Your task to perform on an android device: move an email to a new category in the gmail app Image 0: 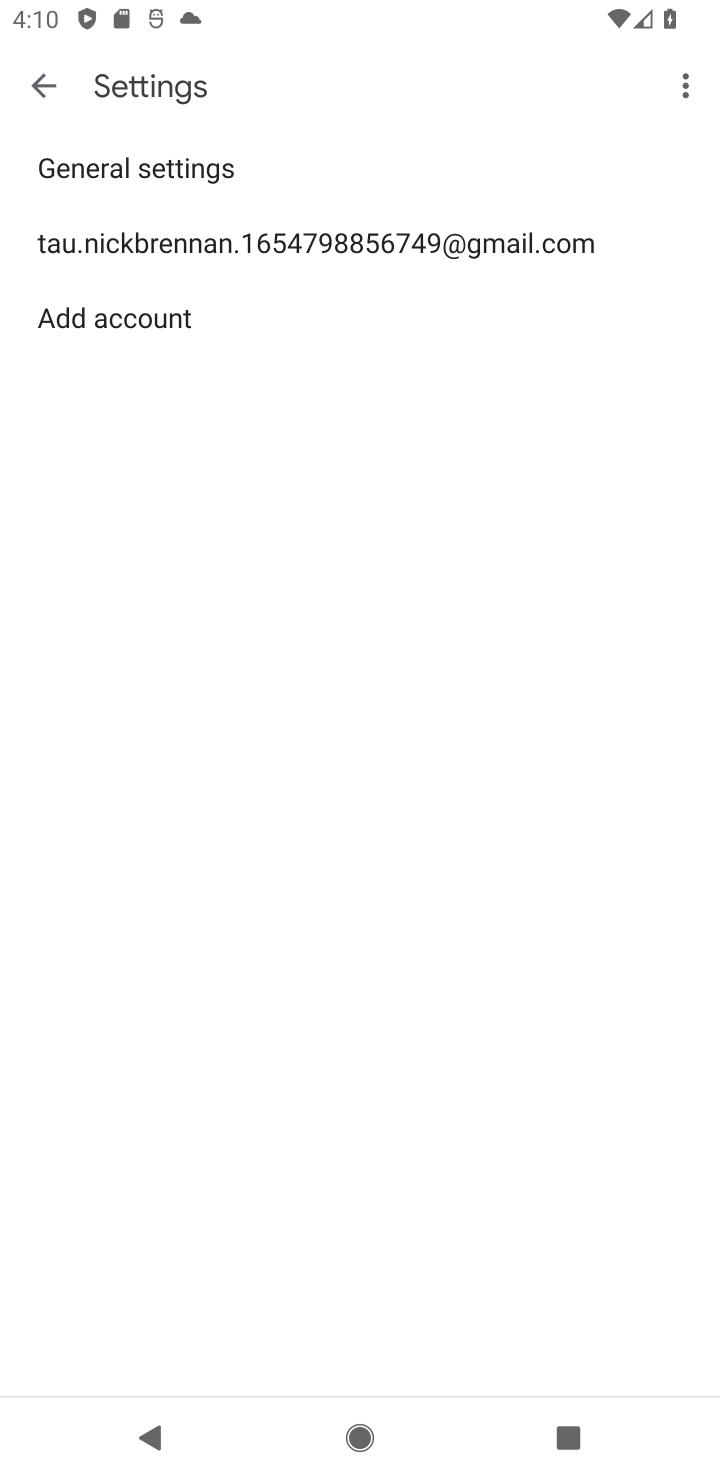
Step 0: drag from (366, 1181) to (488, 622)
Your task to perform on an android device: move an email to a new category in the gmail app Image 1: 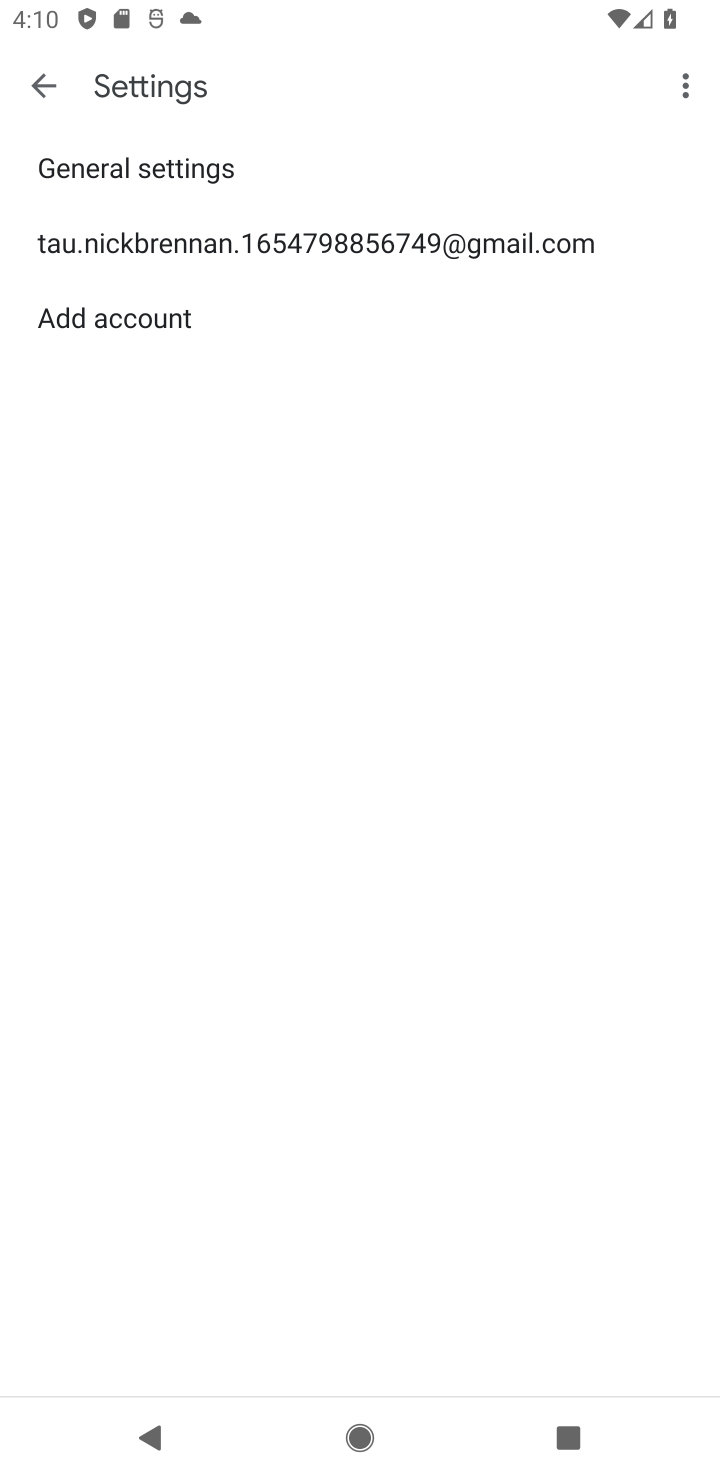
Step 1: press home button
Your task to perform on an android device: move an email to a new category in the gmail app Image 2: 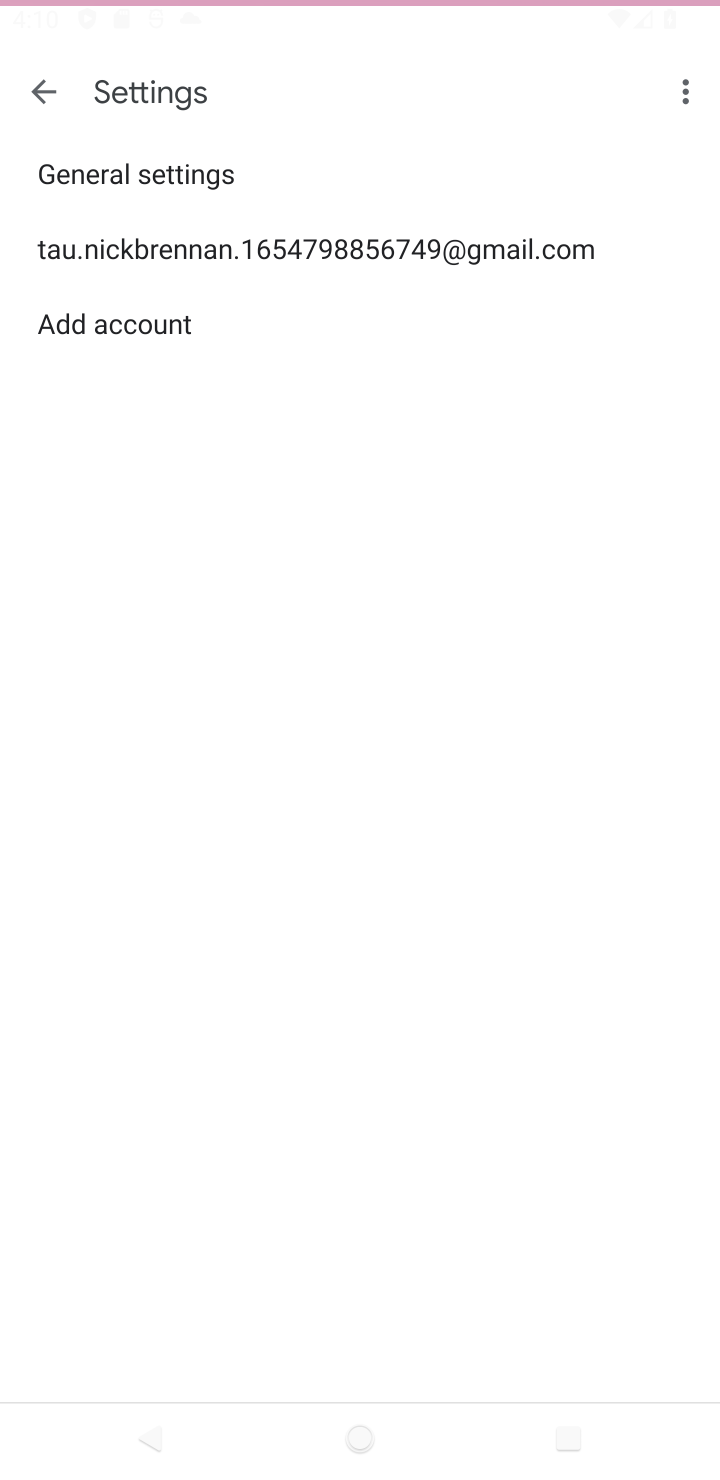
Step 2: drag from (265, 1086) to (418, 357)
Your task to perform on an android device: move an email to a new category in the gmail app Image 3: 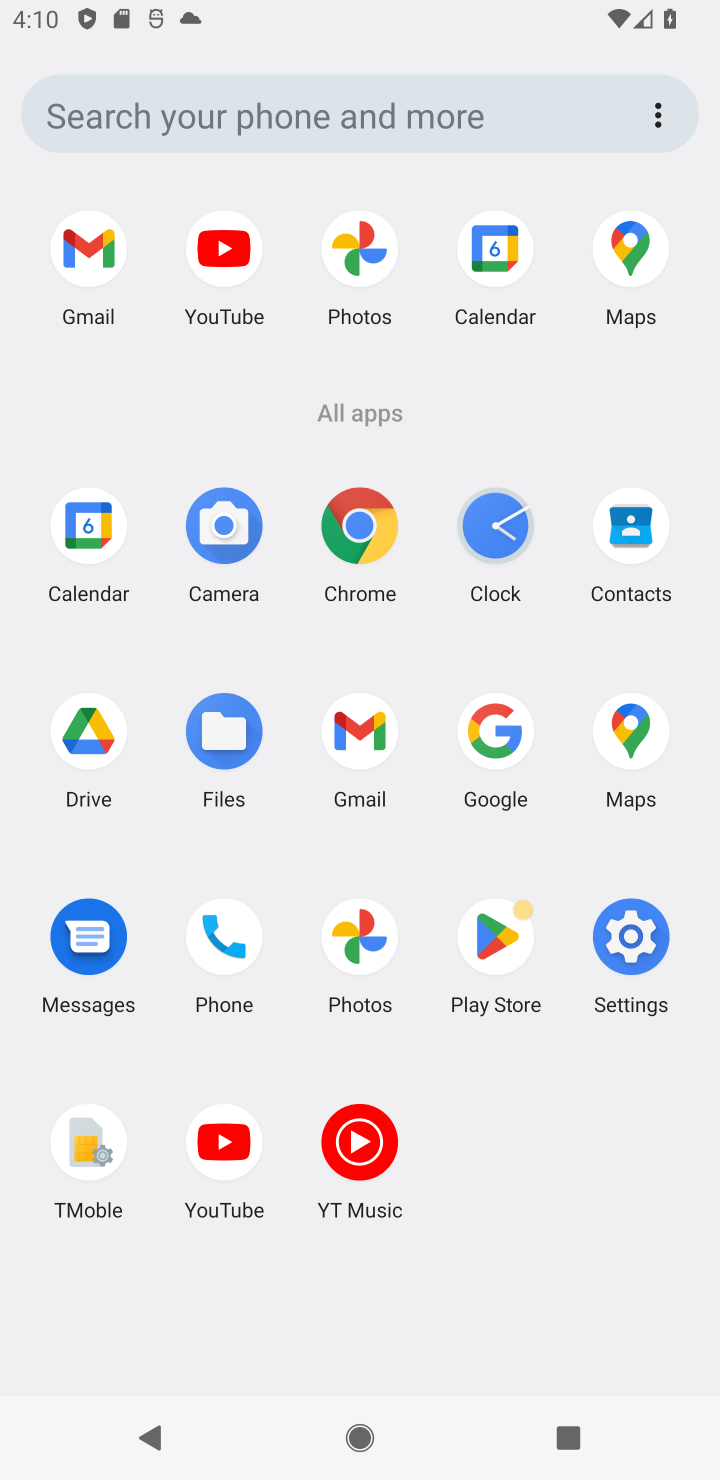
Step 3: drag from (404, 1199) to (457, 582)
Your task to perform on an android device: move an email to a new category in the gmail app Image 4: 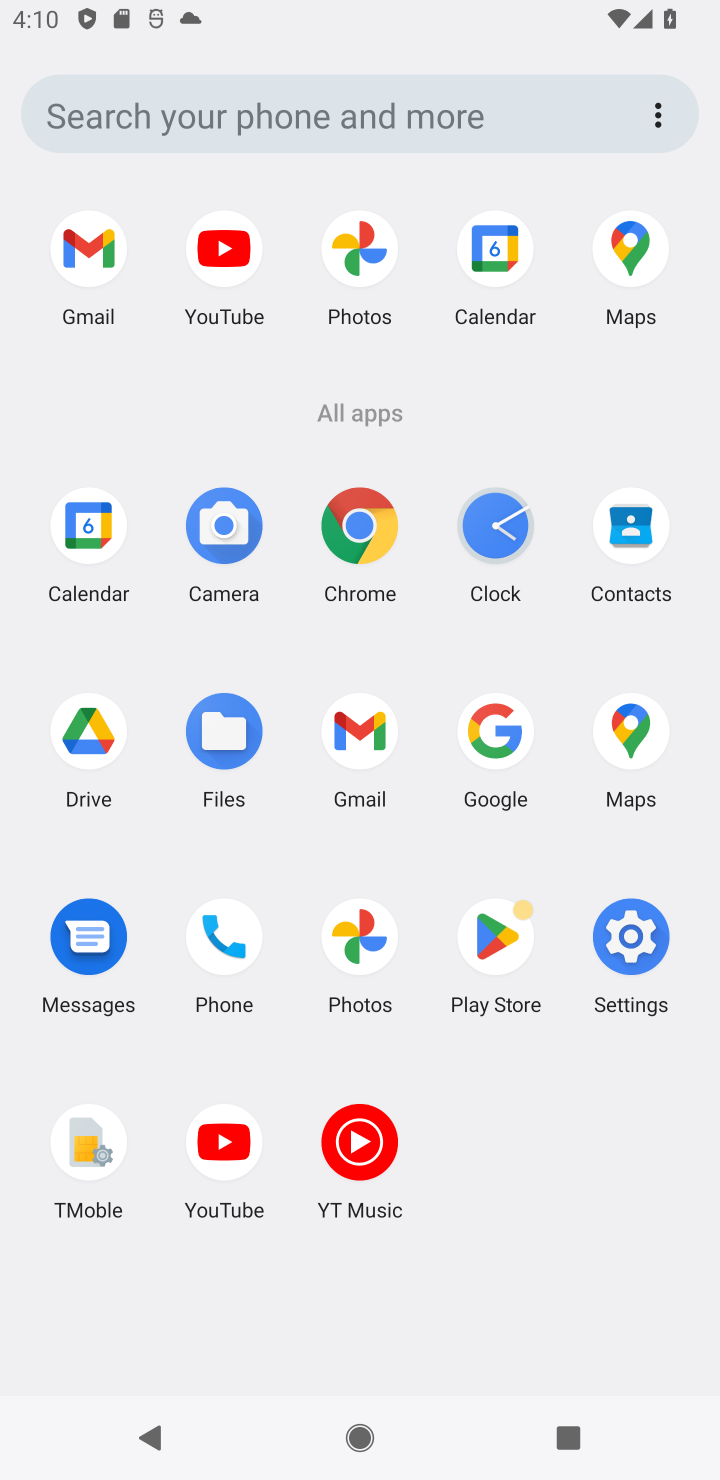
Step 4: click (347, 737)
Your task to perform on an android device: move an email to a new category in the gmail app Image 5: 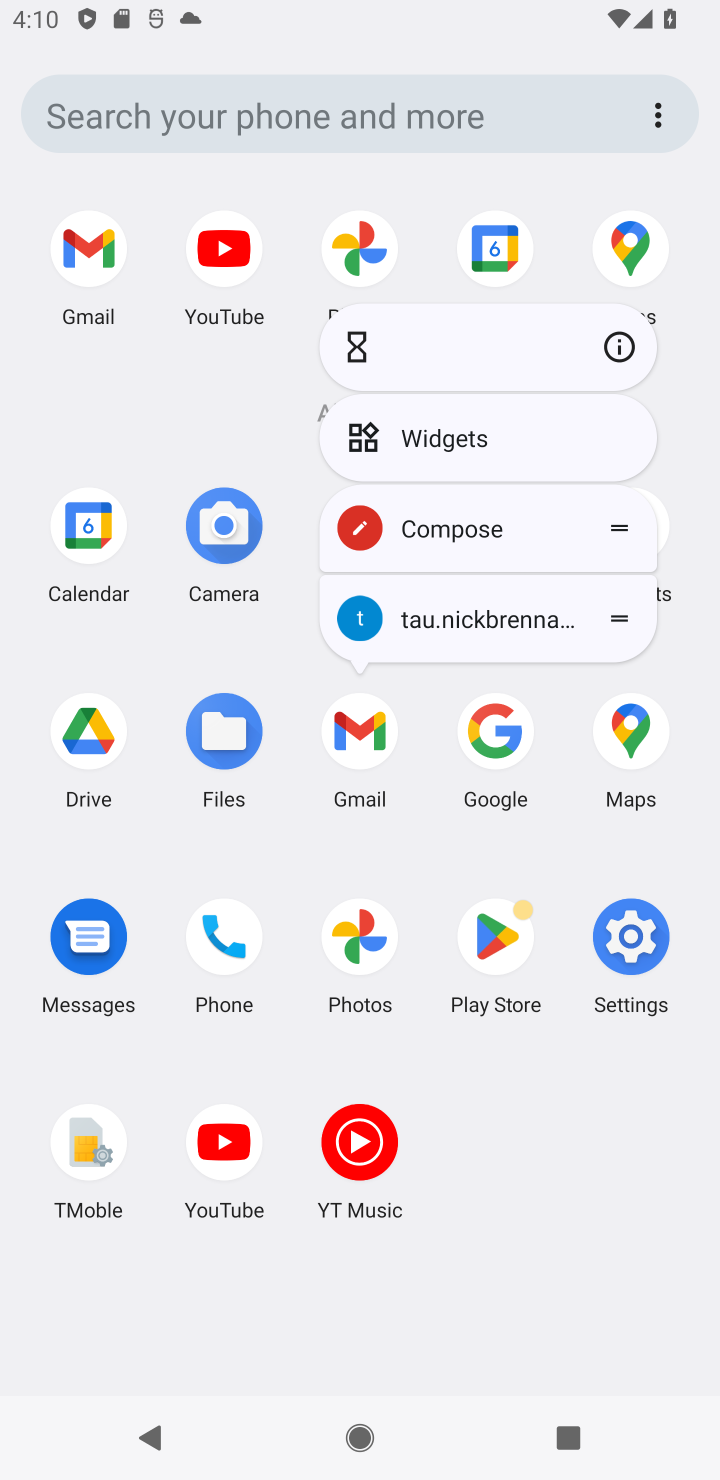
Step 5: click (625, 345)
Your task to perform on an android device: move an email to a new category in the gmail app Image 6: 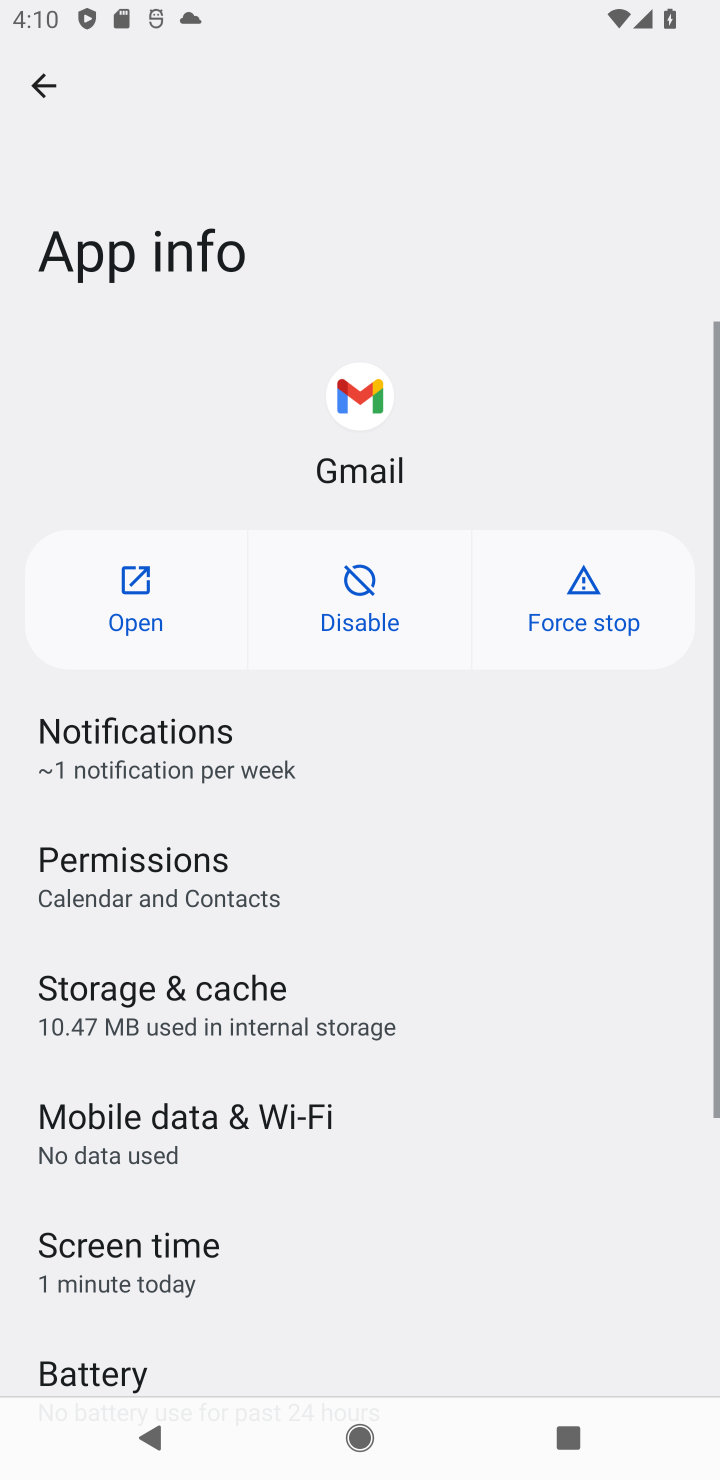
Step 6: click (127, 606)
Your task to perform on an android device: move an email to a new category in the gmail app Image 7: 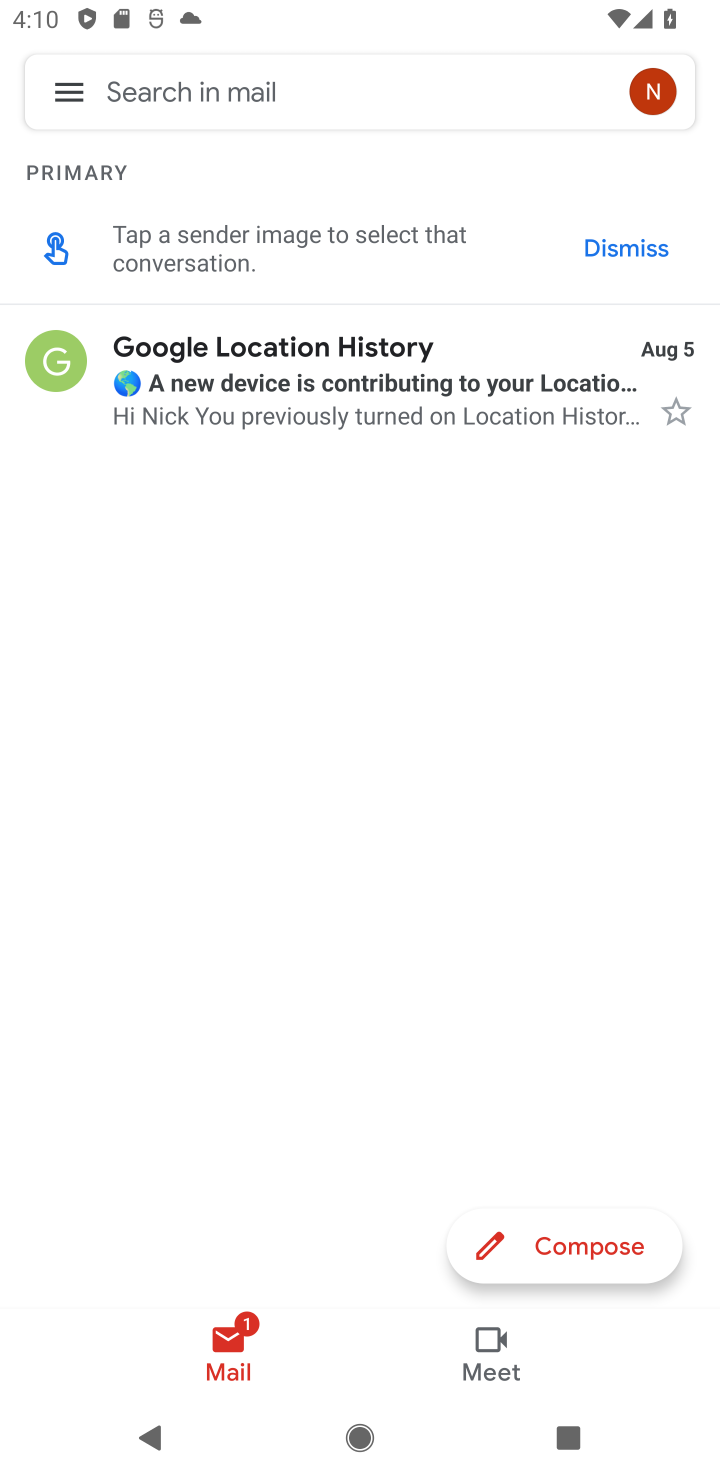
Step 7: drag from (373, 847) to (436, 370)
Your task to perform on an android device: move an email to a new category in the gmail app Image 8: 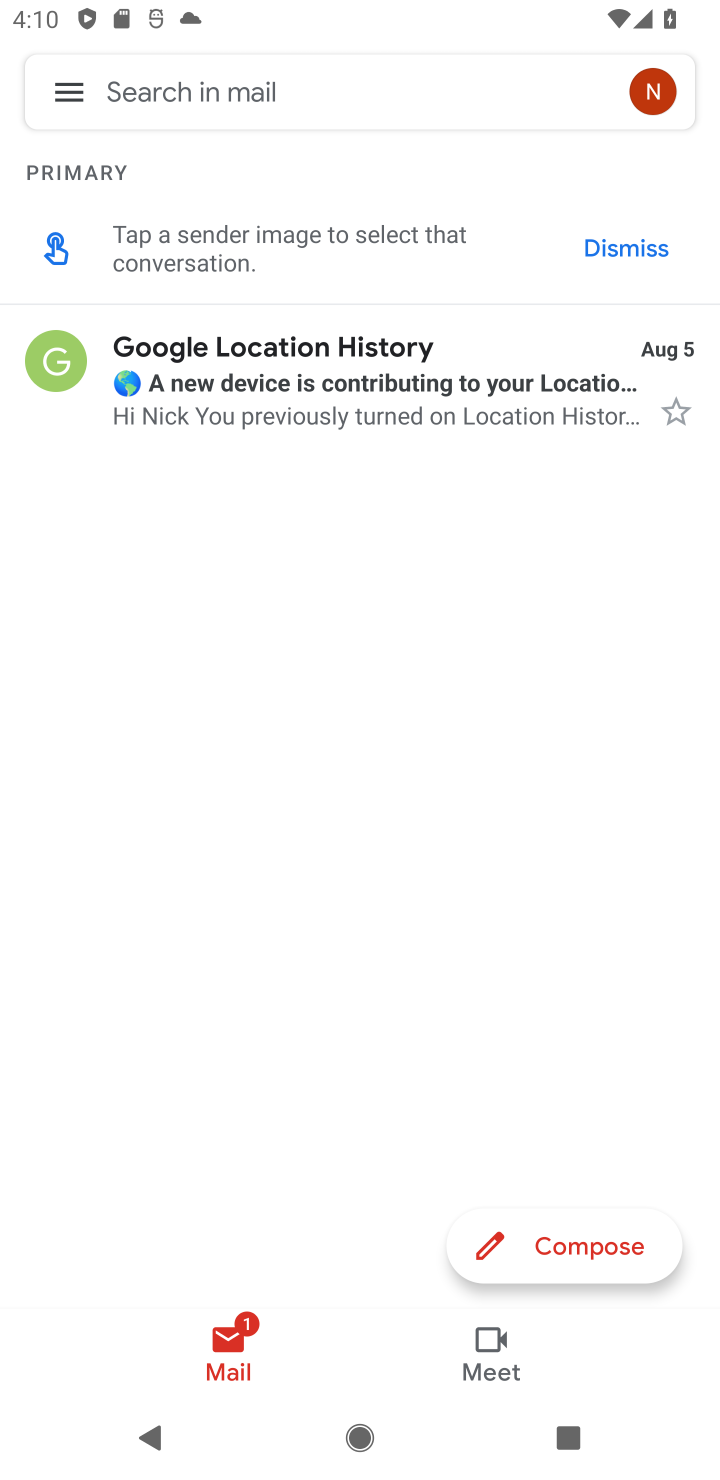
Step 8: drag from (331, 878) to (364, 642)
Your task to perform on an android device: move an email to a new category in the gmail app Image 9: 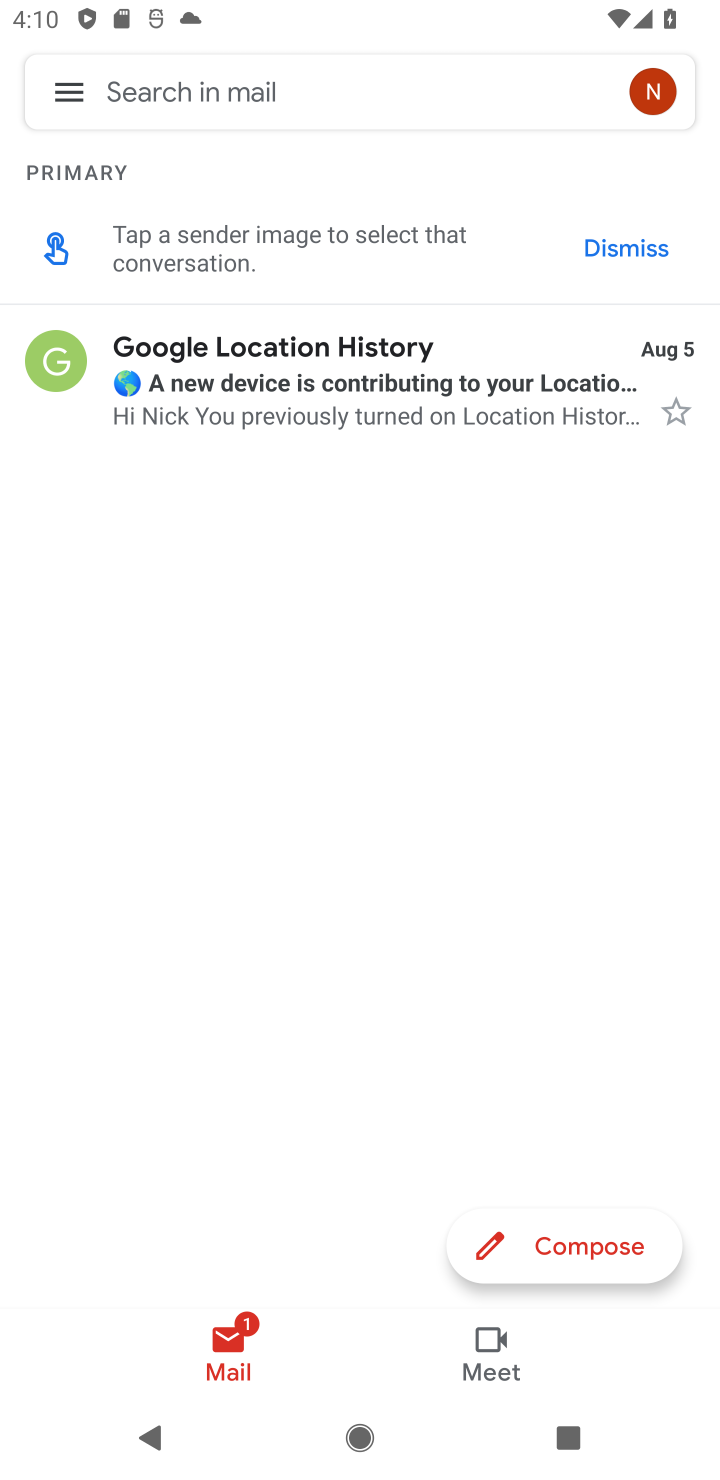
Step 9: click (327, 348)
Your task to perform on an android device: move an email to a new category in the gmail app Image 10: 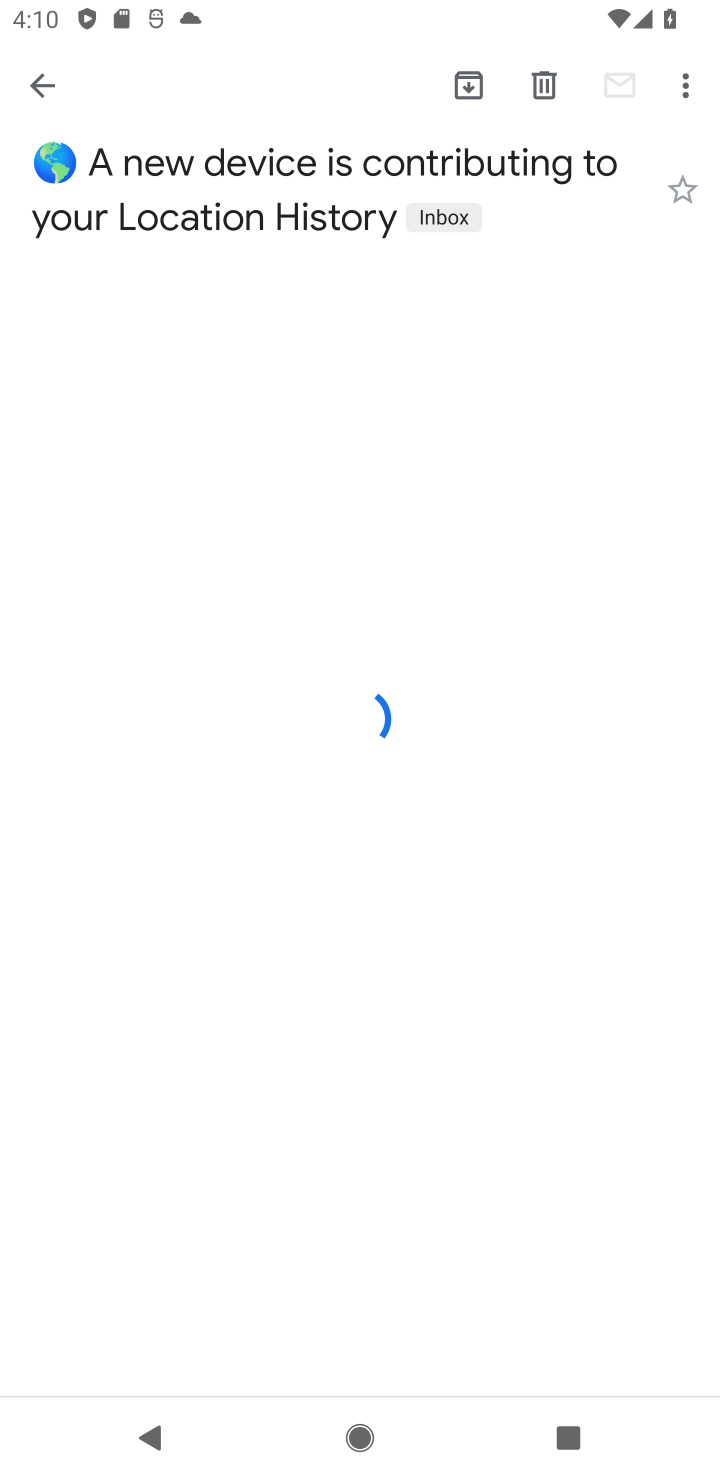
Step 10: drag from (406, 916) to (471, 389)
Your task to perform on an android device: move an email to a new category in the gmail app Image 11: 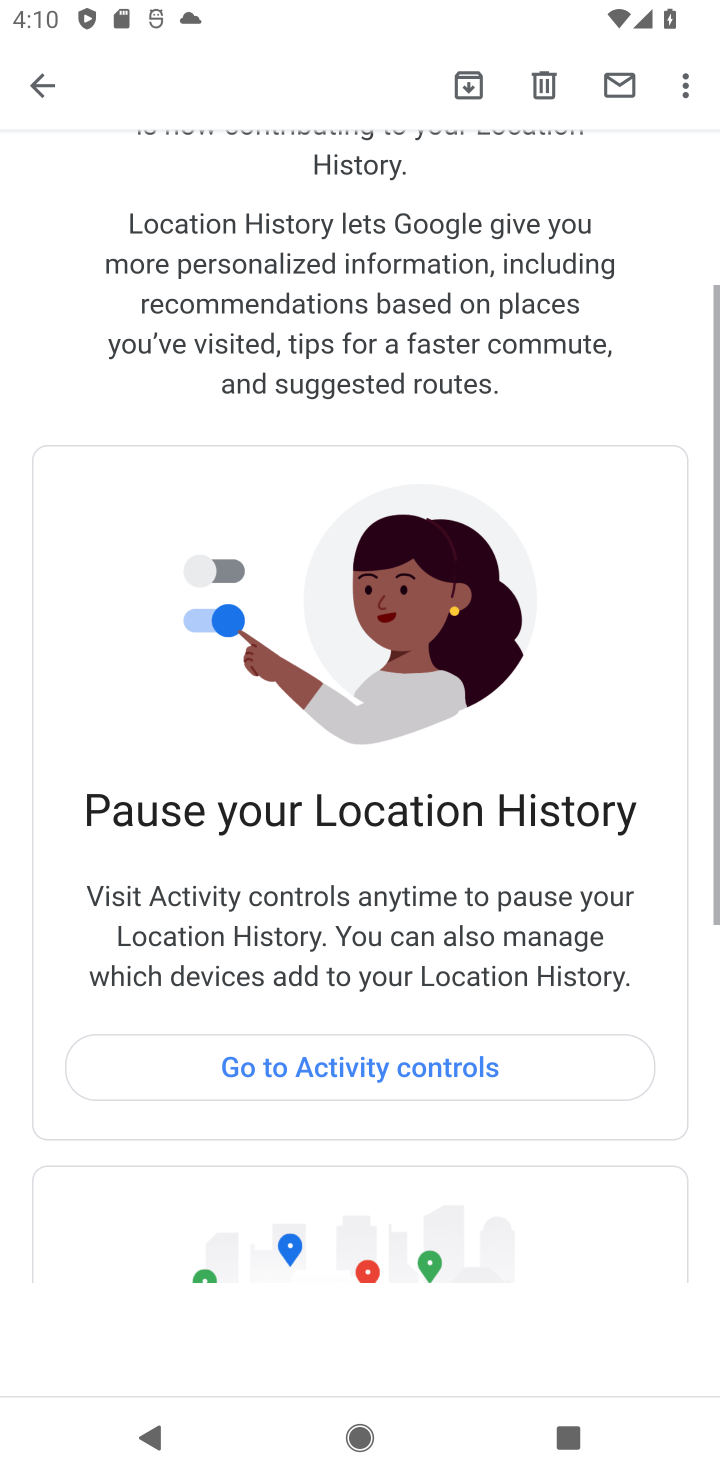
Step 11: drag from (309, 911) to (410, 408)
Your task to perform on an android device: move an email to a new category in the gmail app Image 12: 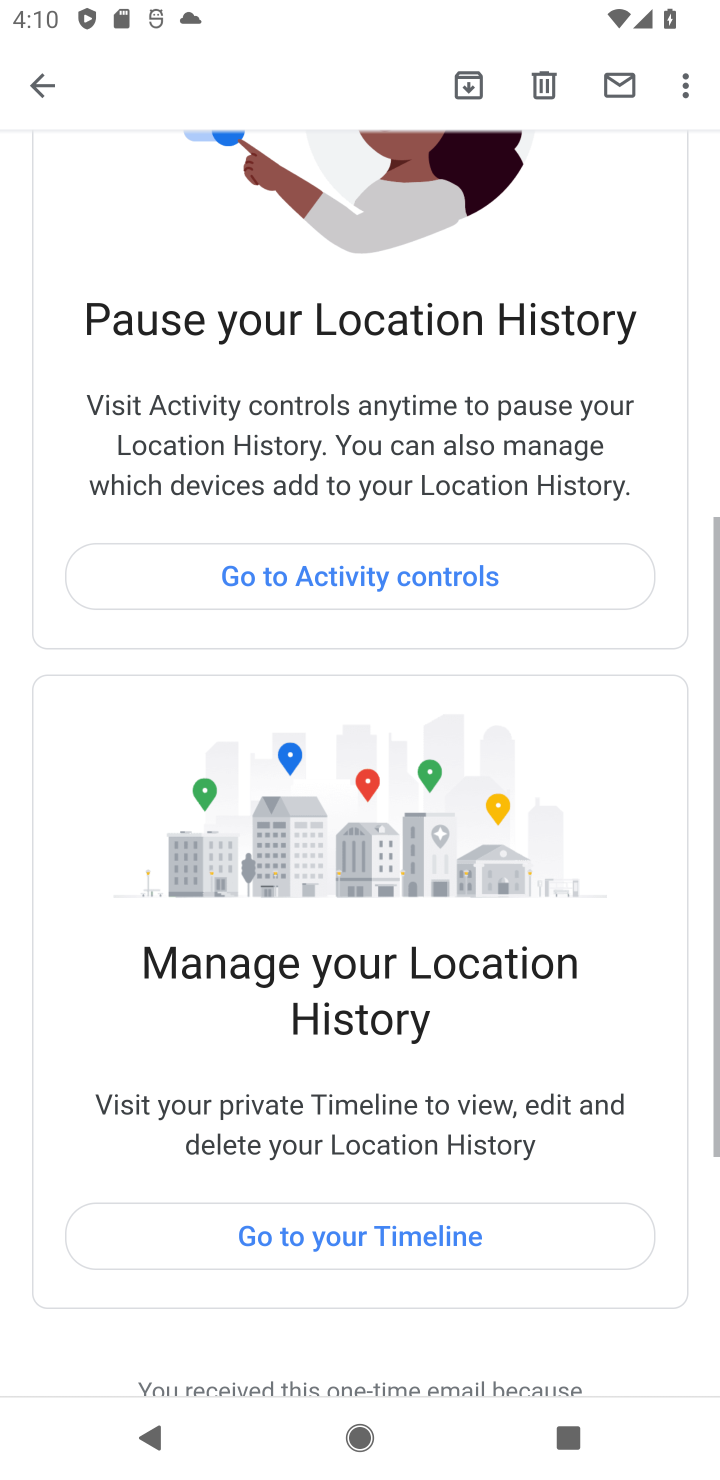
Step 12: drag from (424, 1159) to (475, 468)
Your task to perform on an android device: move an email to a new category in the gmail app Image 13: 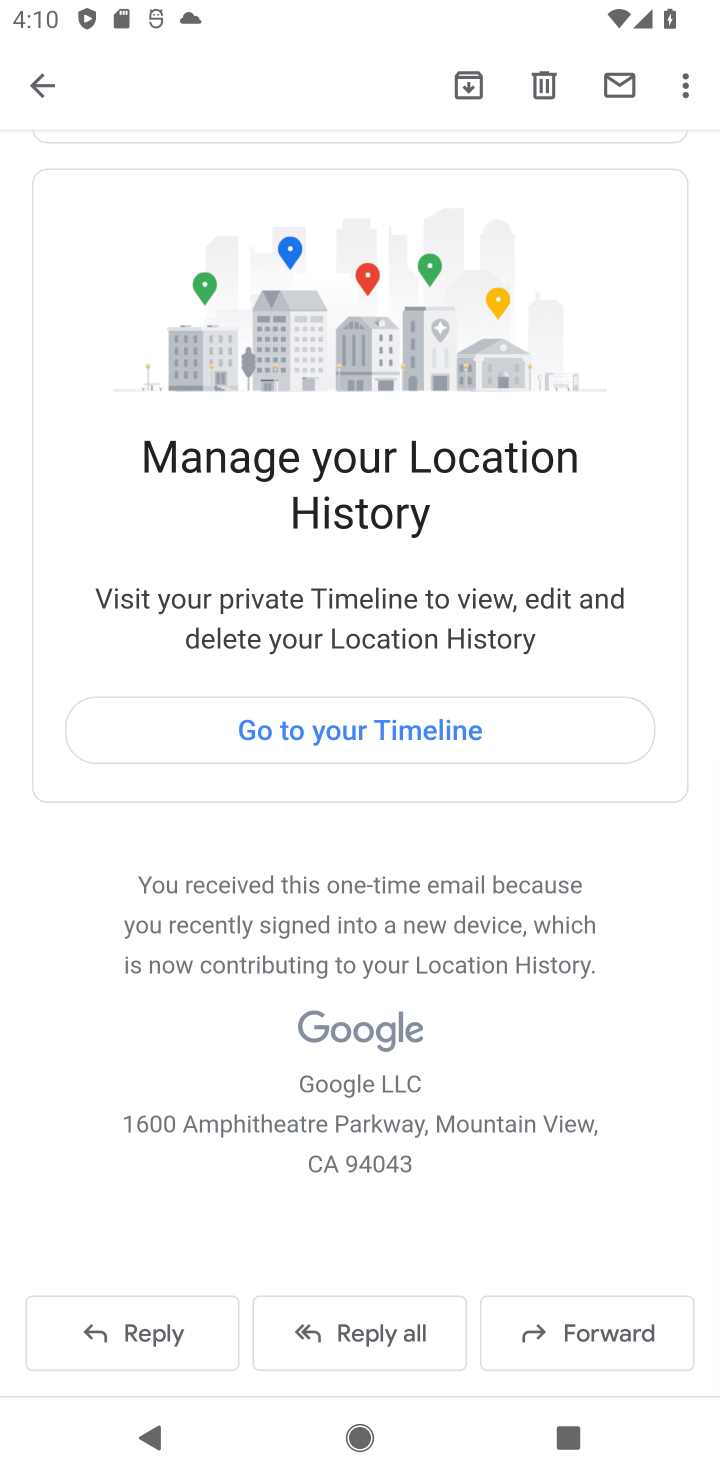
Step 13: drag from (335, 917) to (513, 324)
Your task to perform on an android device: move an email to a new category in the gmail app Image 14: 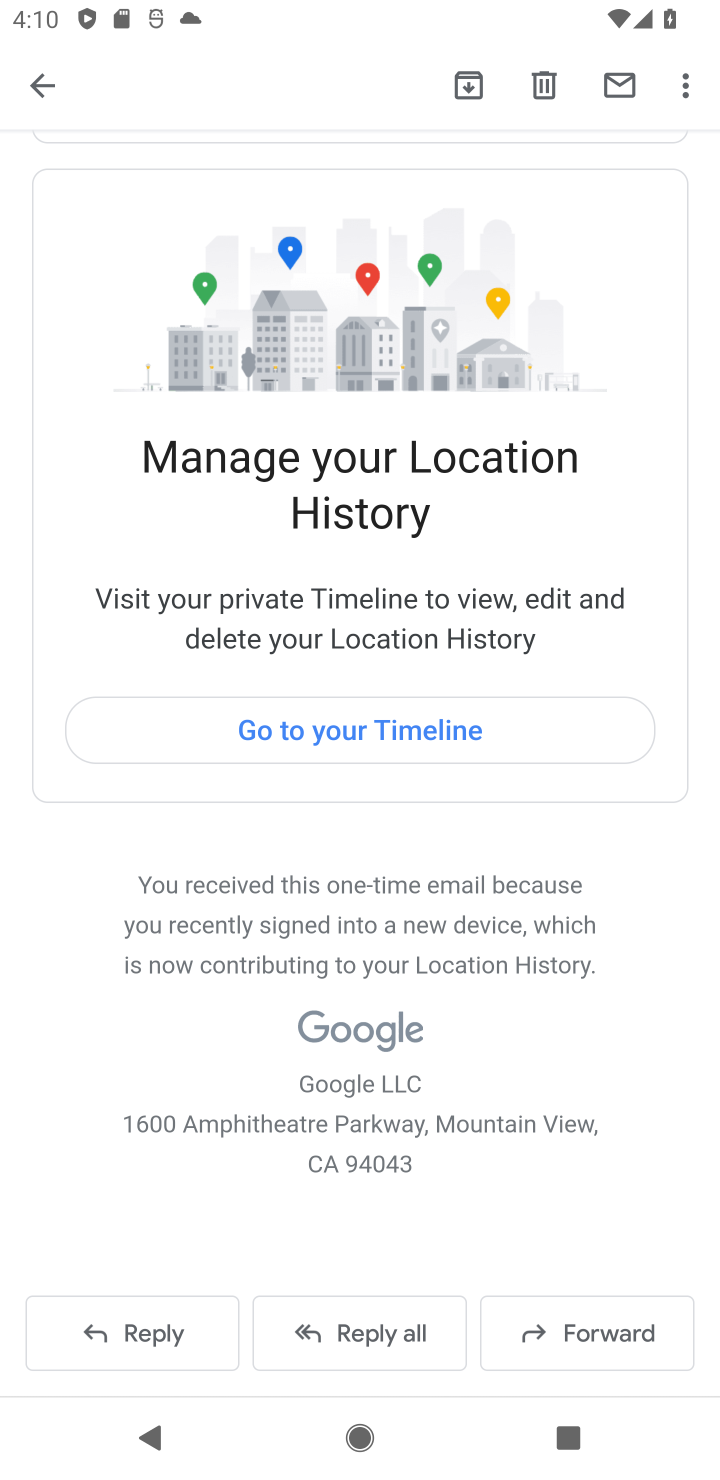
Step 14: drag from (458, 1007) to (512, 462)
Your task to perform on an android device: move an email to a new category in the gmail app Image 15: 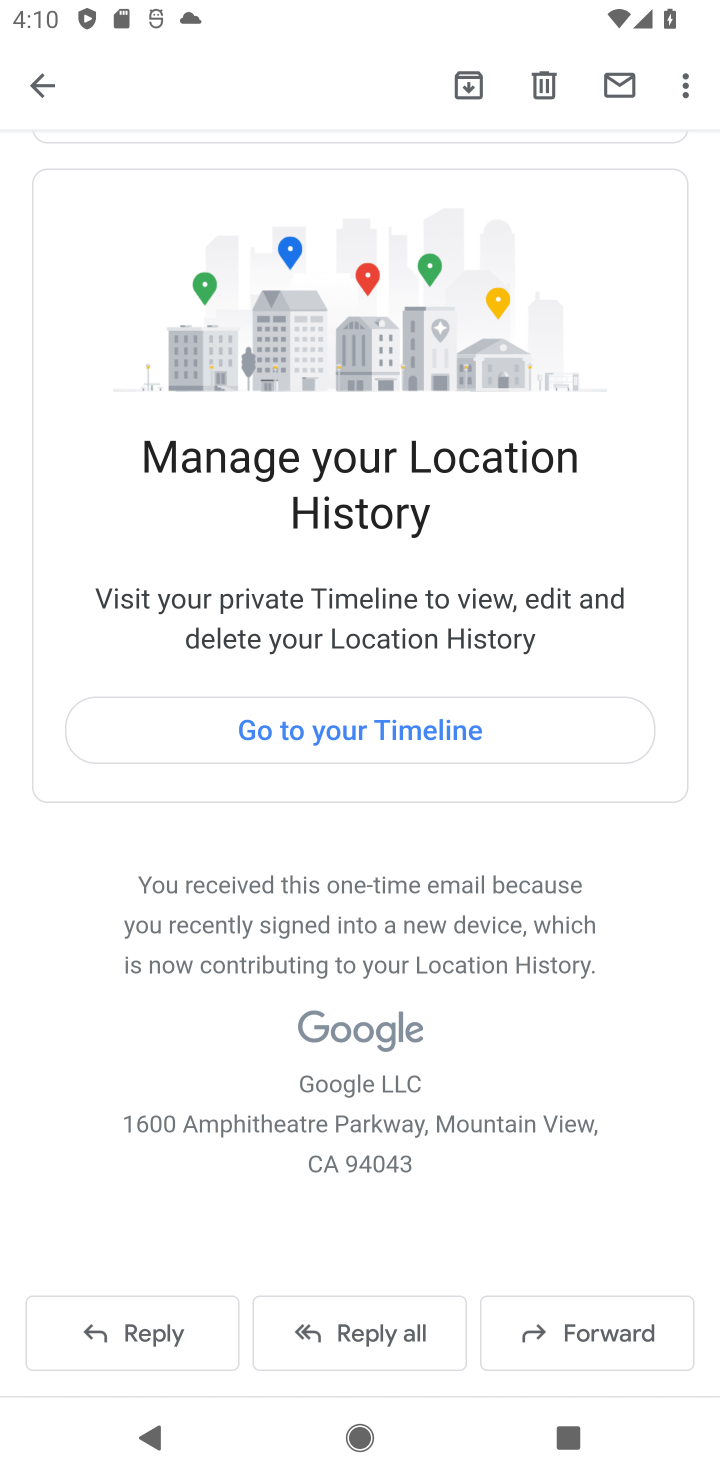
Step 15: drag from (489, 460) to (549, 1158)
Your task to perform on an android device: move an email to a new category in the gmail app Image 16: 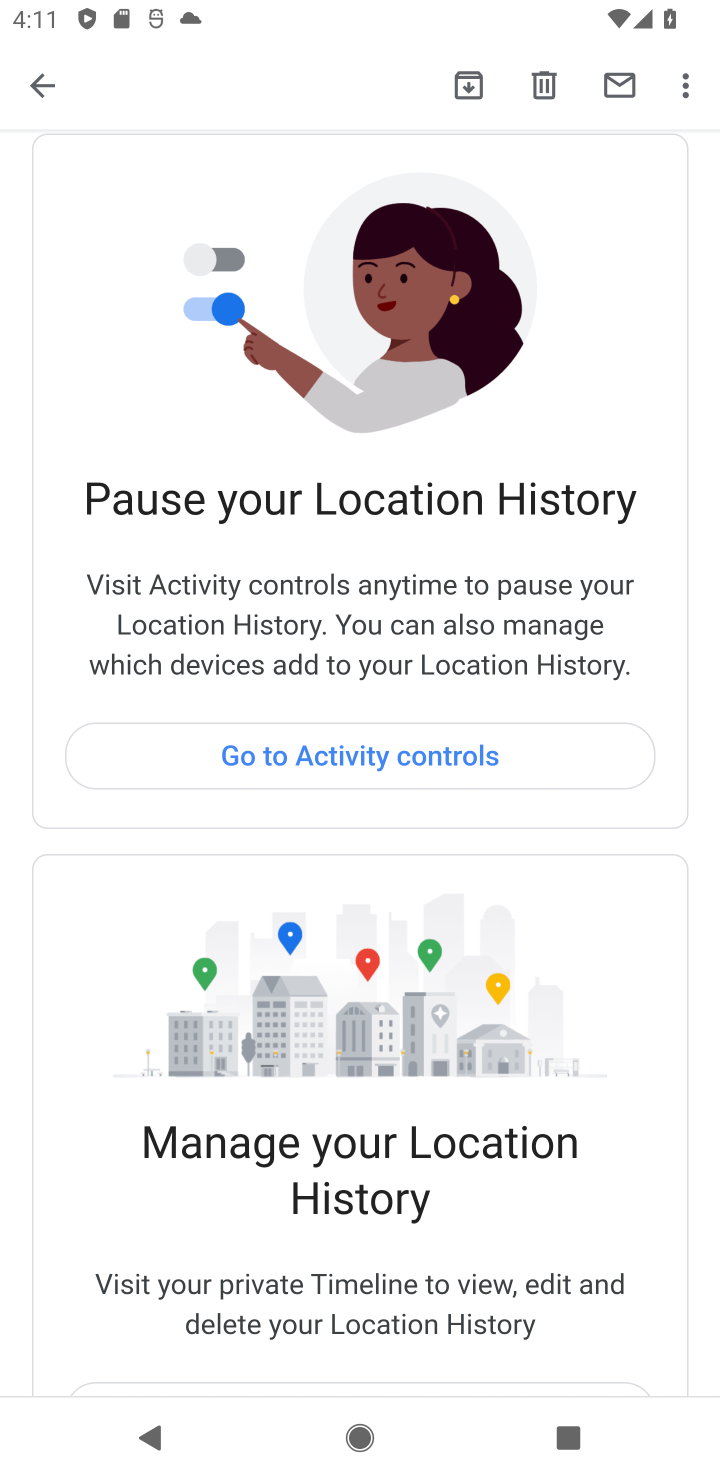
Step 16: drag from (472, 808) to (647, 589)
Your task to perform on an android device: move an email to a new category in the gmail app Image 17: 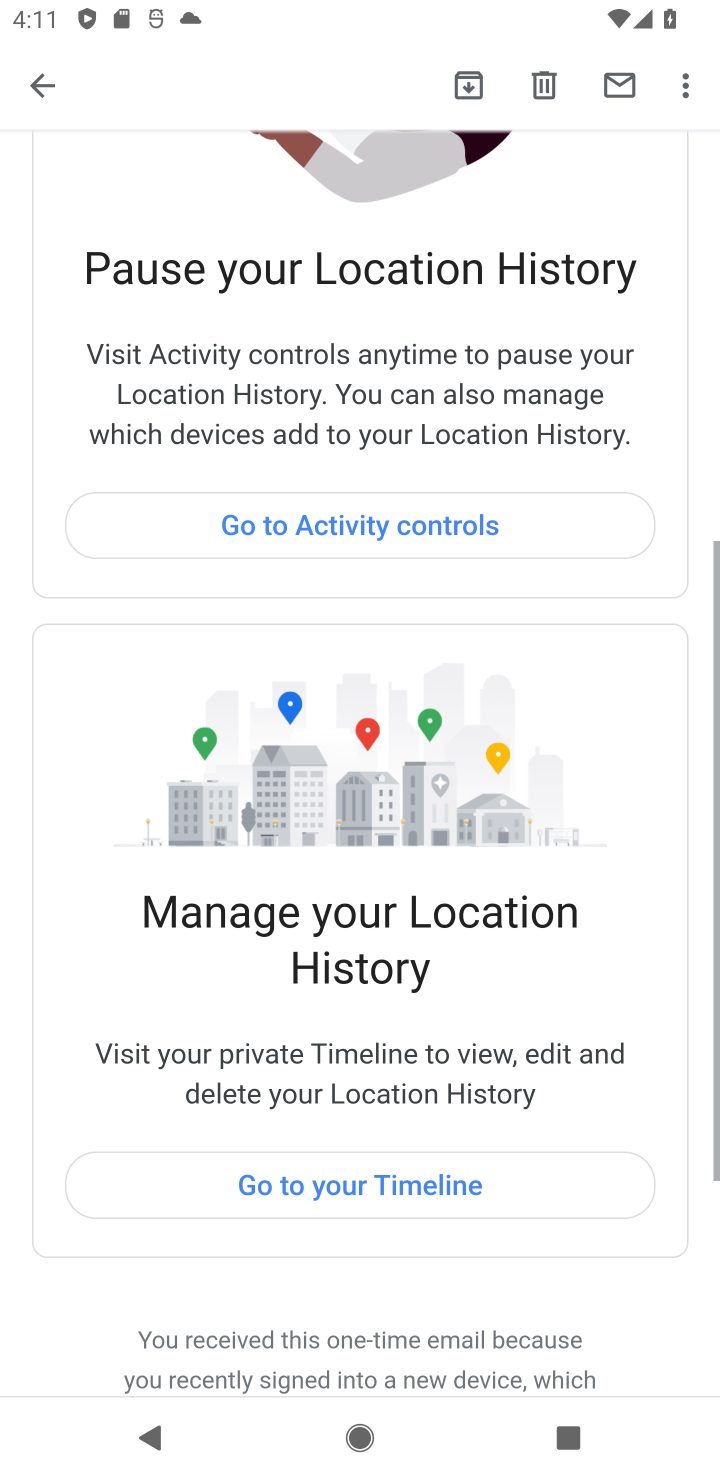
Step 17: drag from (401, 610) to (469, 1286)
Your task to perform on an android device: move an email to a new category in the gmail app Image 18: 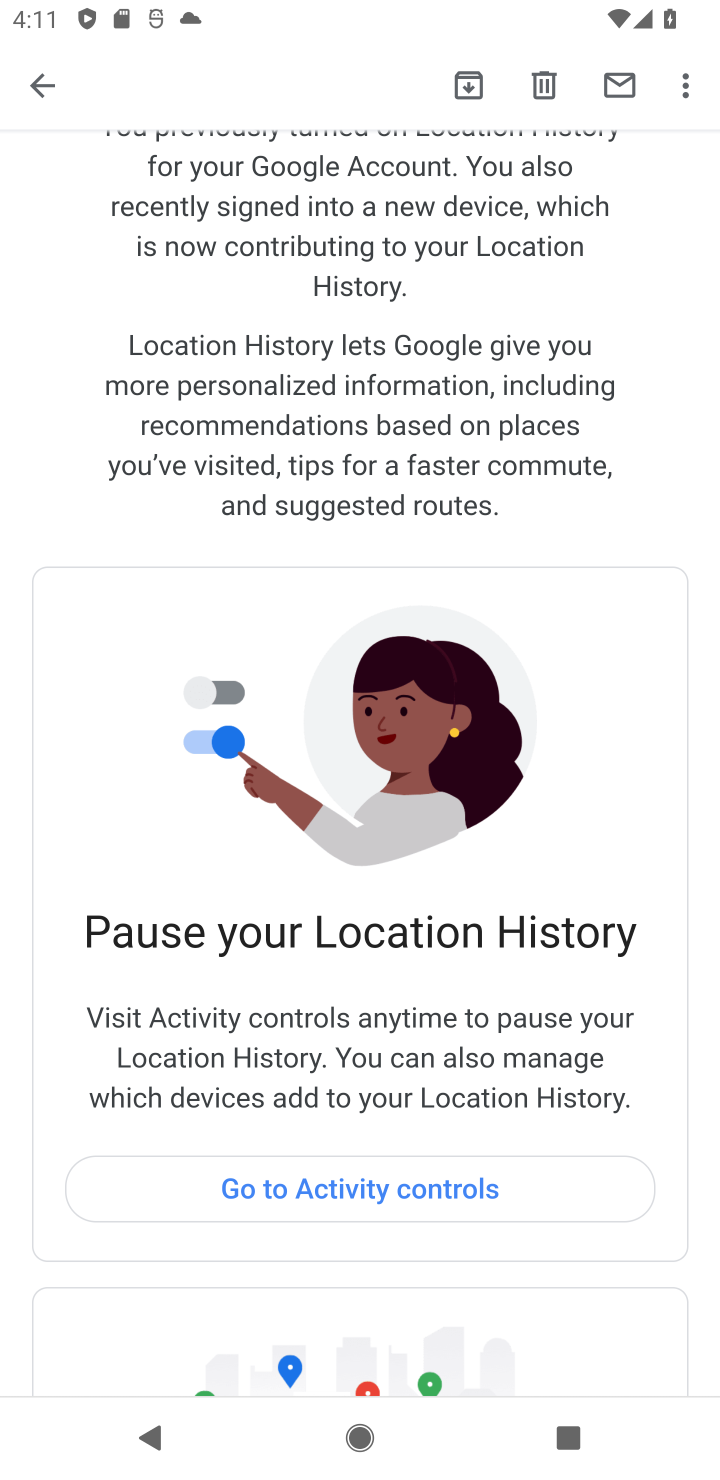
Step 18: drag from (346, 405) to (513, 1049)
Your task to perform on an android device: move an email to a new category in the gmail app Image 19: 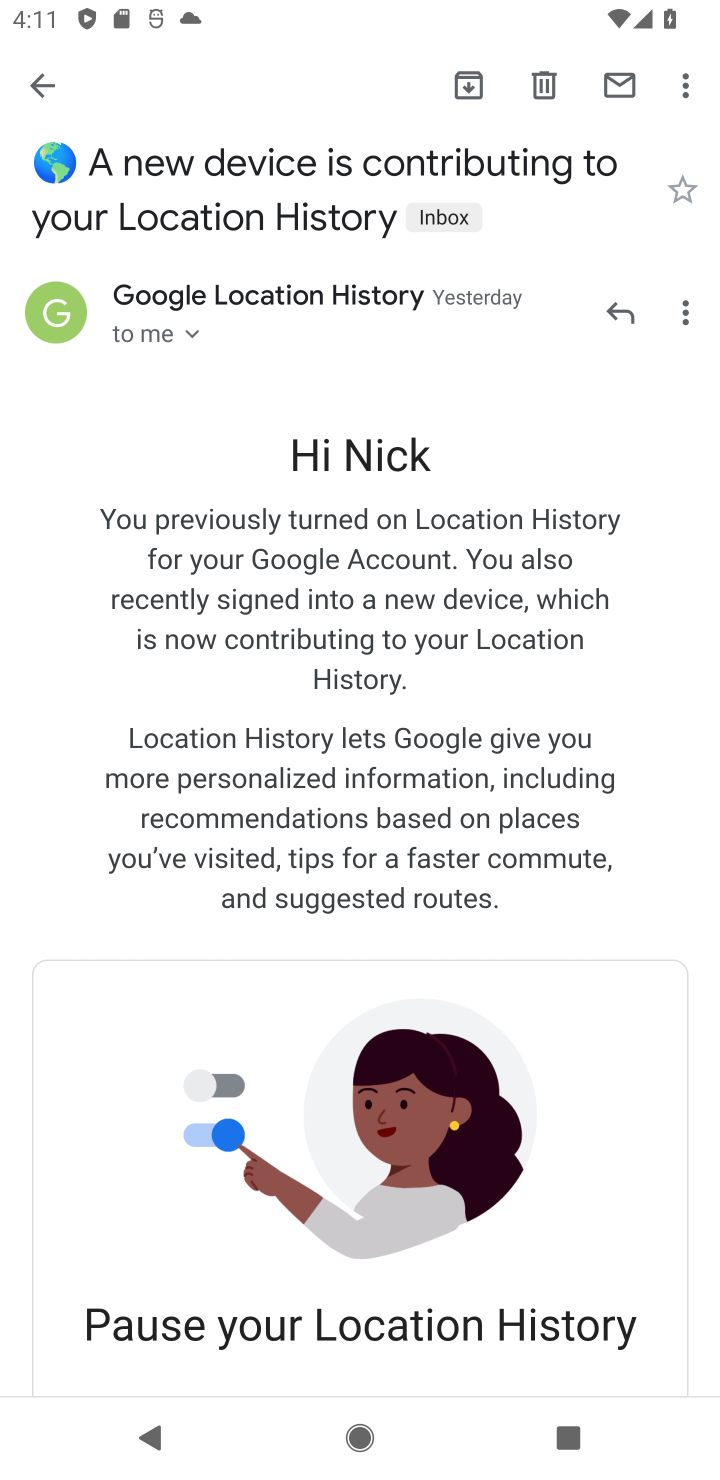
Step 19: drag from (378, 475) to (531, 1150)
Your task to perform on an android device: move an email to a new category in the gmail app Image 20: 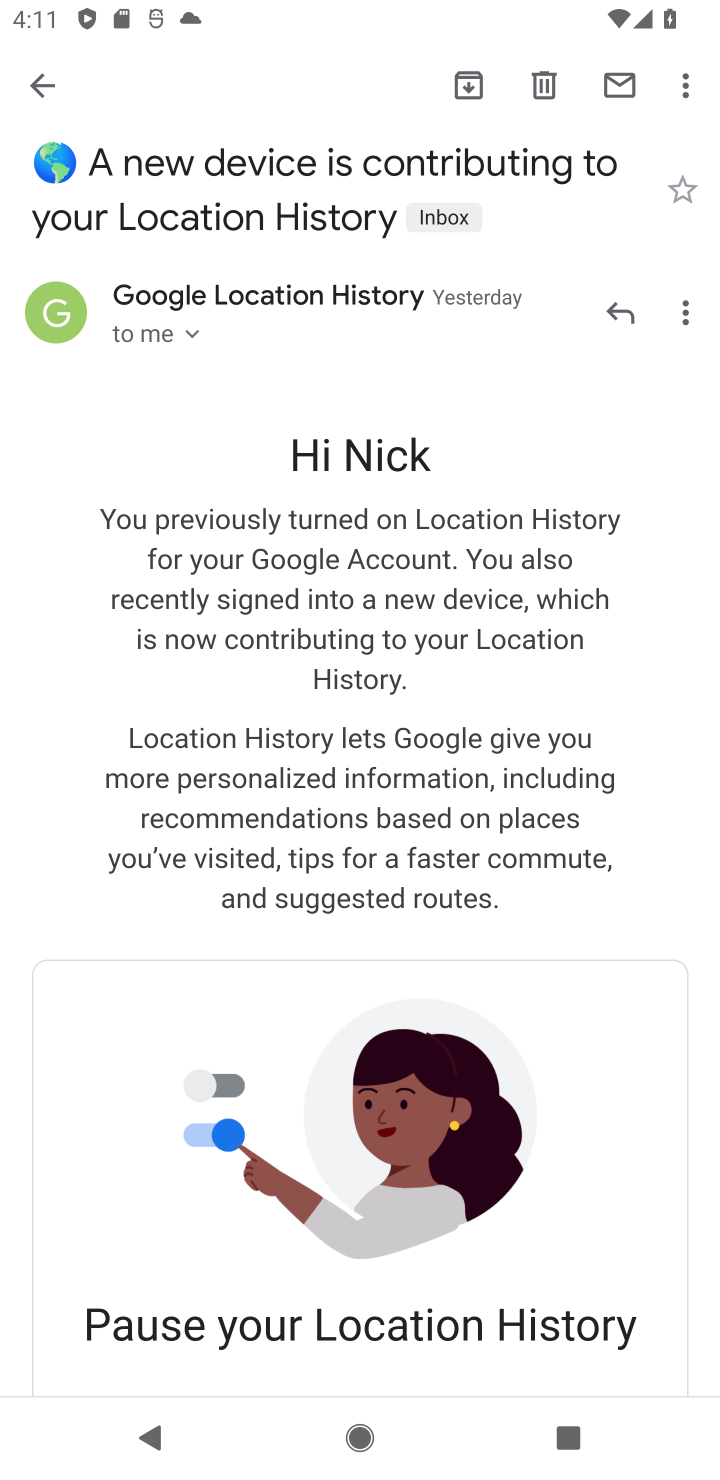
Step 20: drag from (426, 553) to (540, 1234)
Your task to perform on an android device: move an email to a new category in the gmail app Image 21: 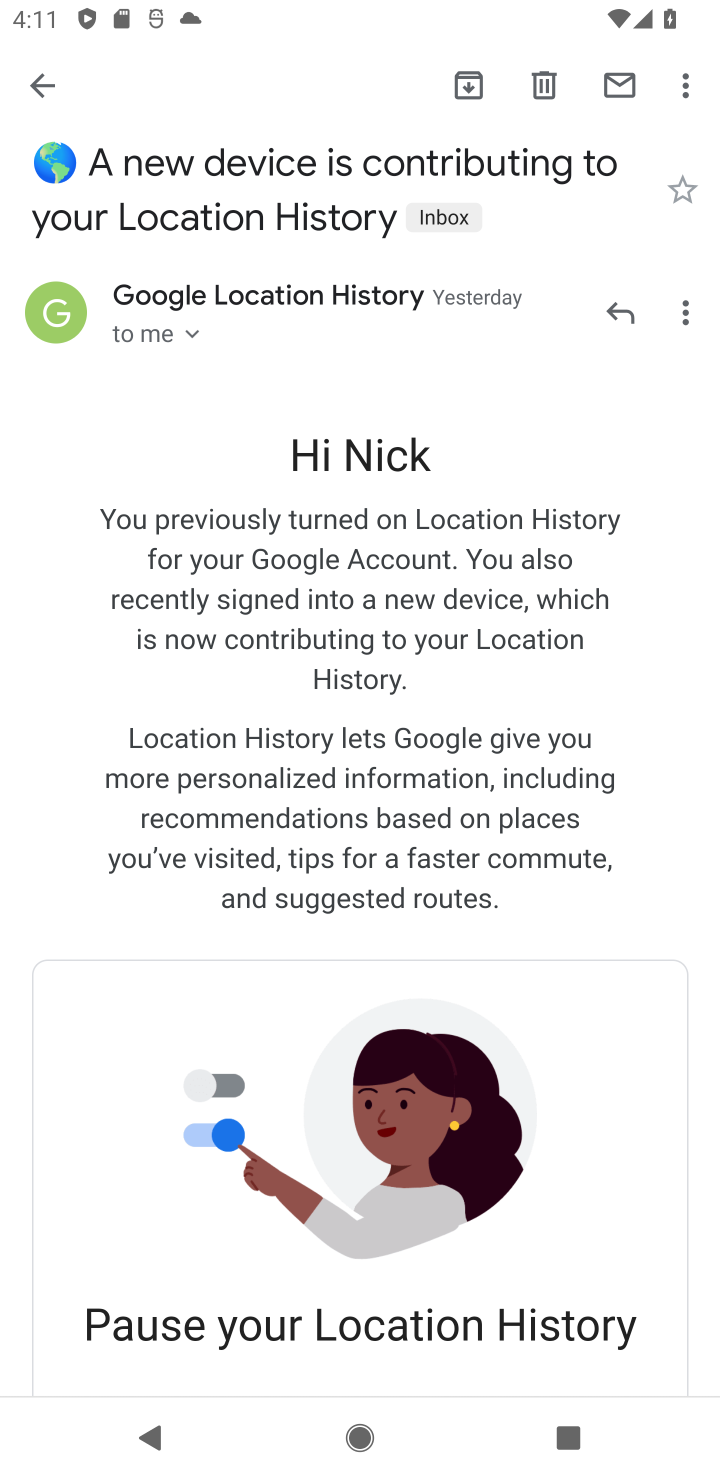
Step 21: drag from (434, 781) to (589, 1371)
Your task to perform on an android device: move an email to a new category in the gmail app Image 22: 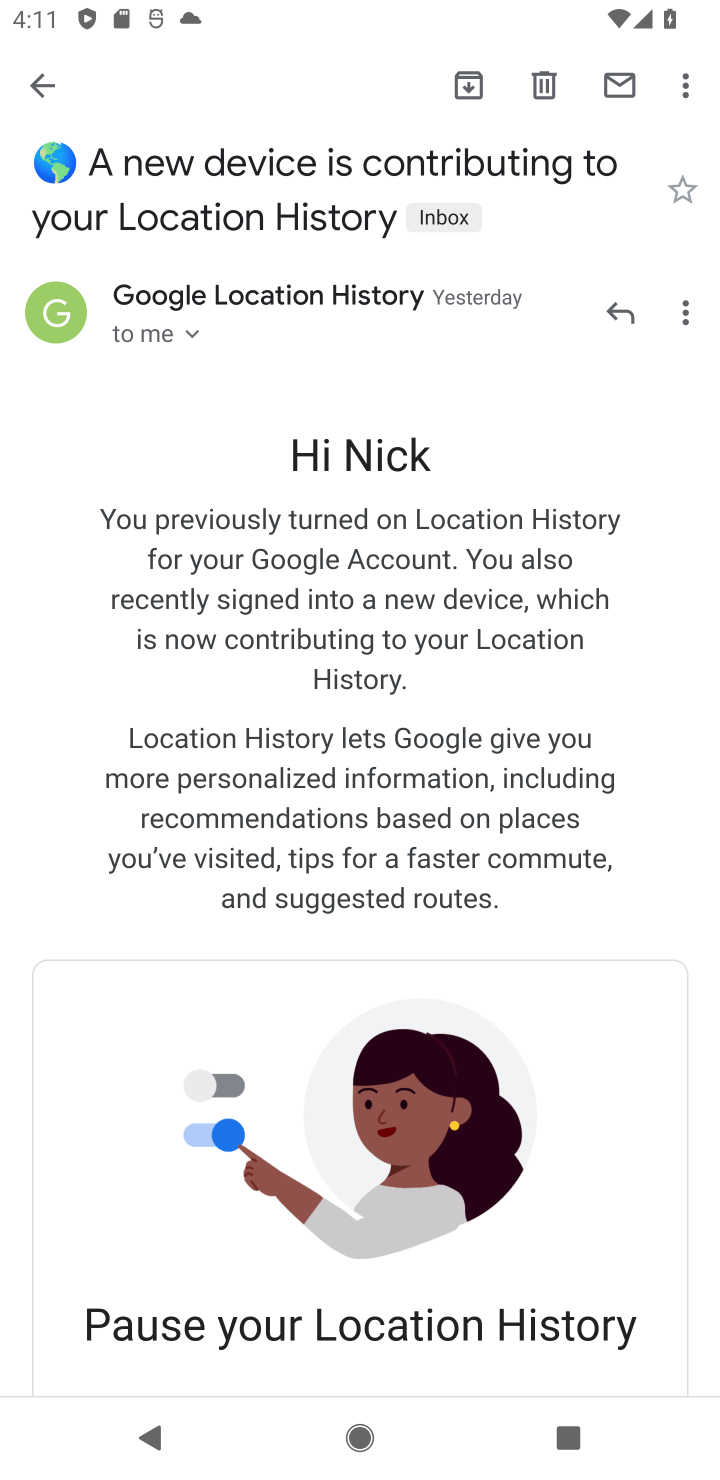
Step 22: drag from (682, 79) to (518, 109)
Your task to perform on an android device: move an email to a new category in the gmail app Image 23: 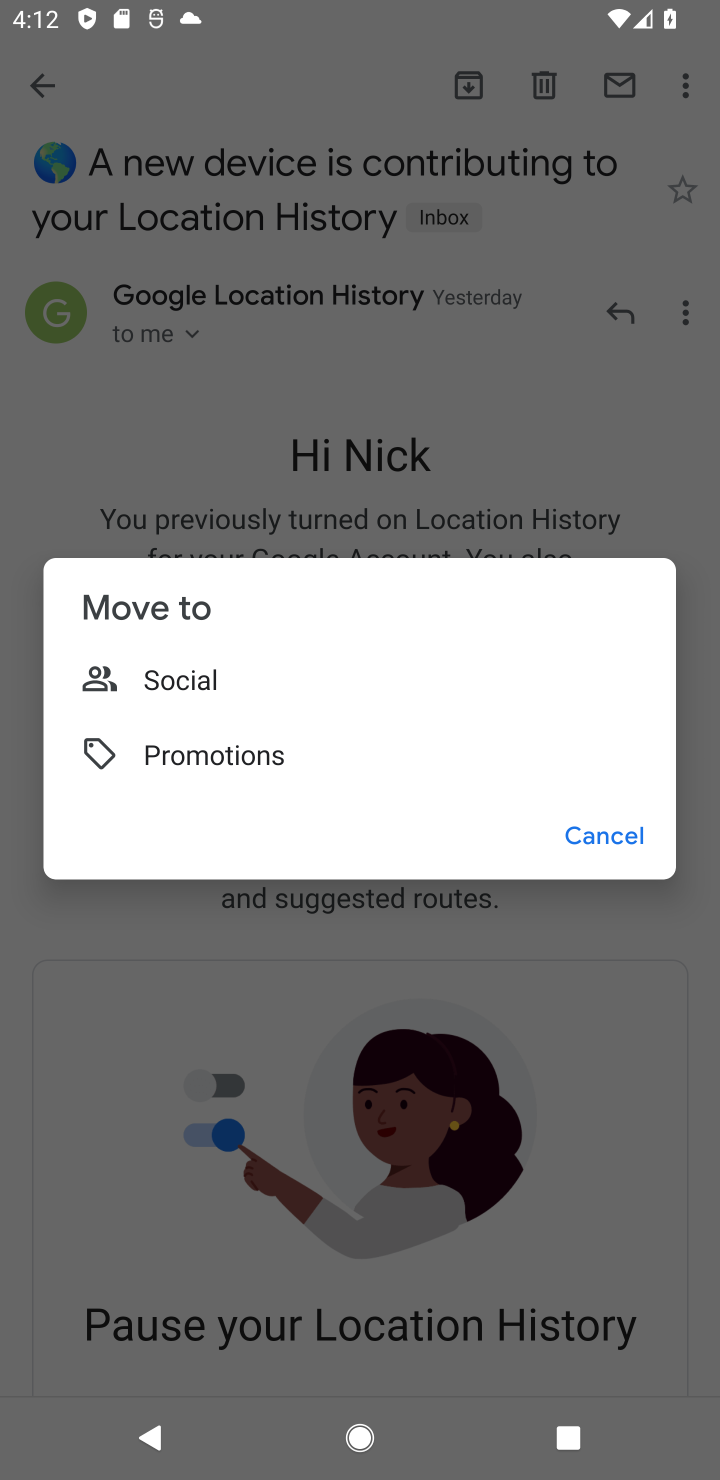
Step 23: click (204, 753)
Your task to perform on an android device: move an email to a new category in the gmail app Image 24: 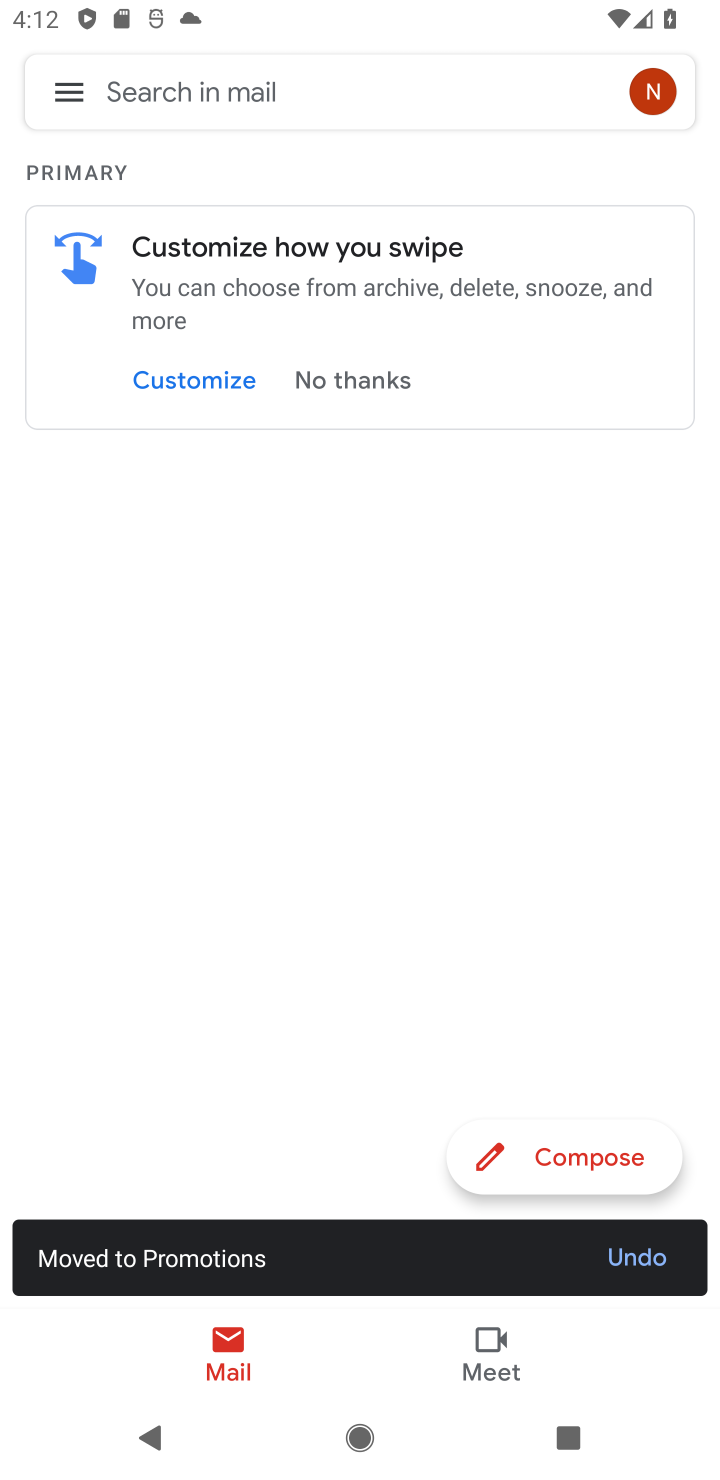
Step 24: task complete